Your task to perform on an android device: set an alarm Image 0: 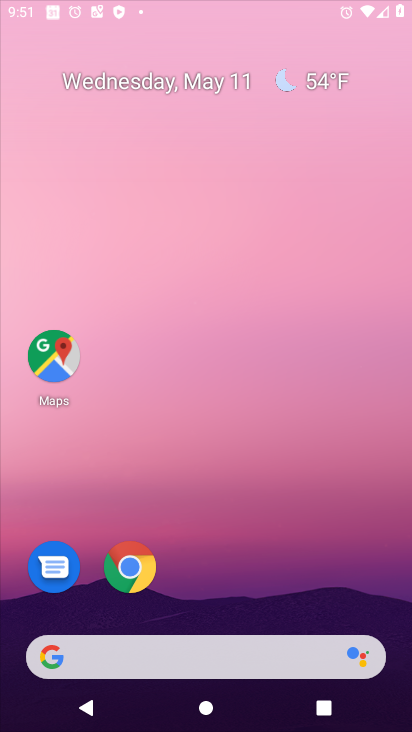
Step 0: click (348, 310)
Your task to perform on an android device: set an alarm Image 1: 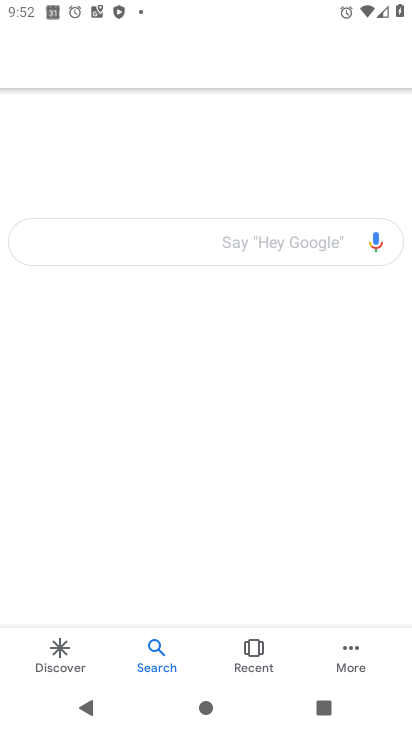
Step 1: press home button
Your task to perform on an android device: set an alarm Image 2: 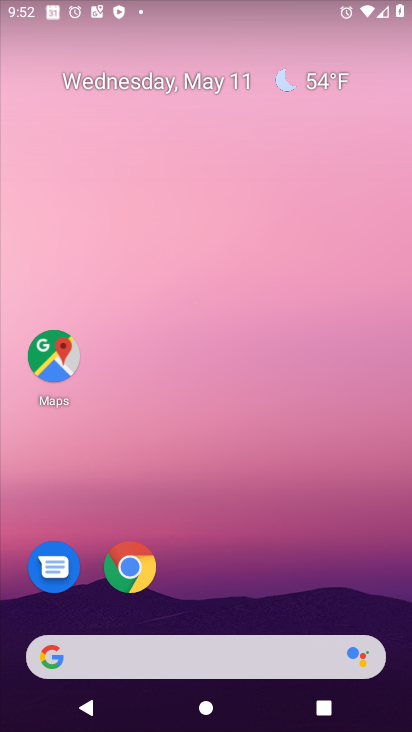
Step 2: drag from (206, 550) to (215, 176)
Your task to perform on an android device: set an alarm Image 3: 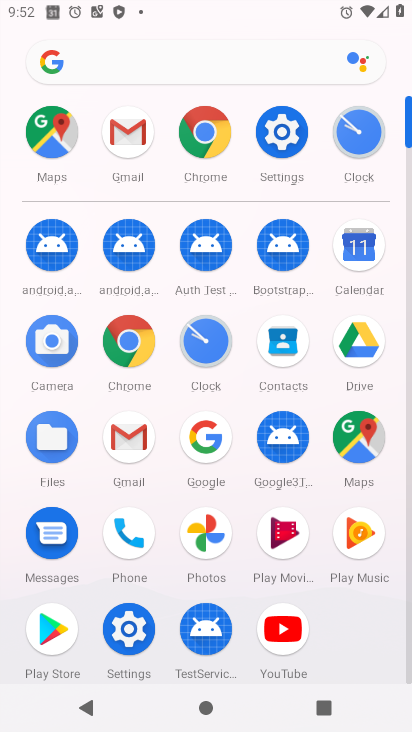
Step 3: click (208, 329)
Your task to perform on an android device: set an alarm Image 4: 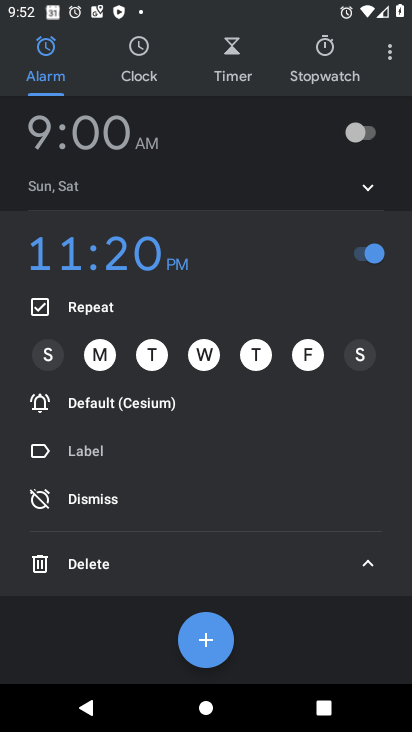
Step 4: click (371, 140)
Your task to perform on an android device: set an alarm Image 5: 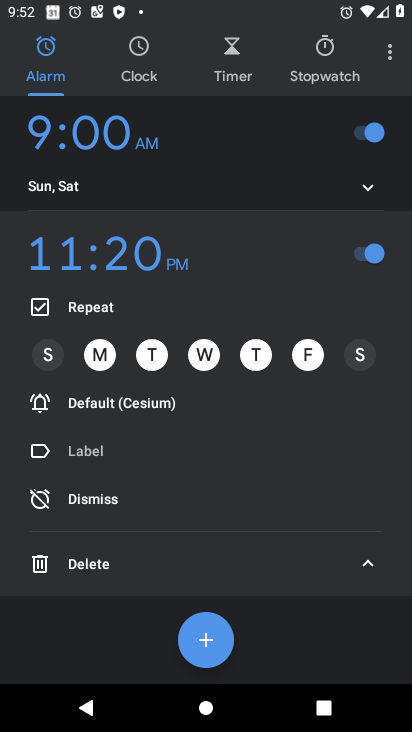
Step 5: task complete